Your task to perform on an android device: open app "Cash App" (install if not already installed) Image 0: 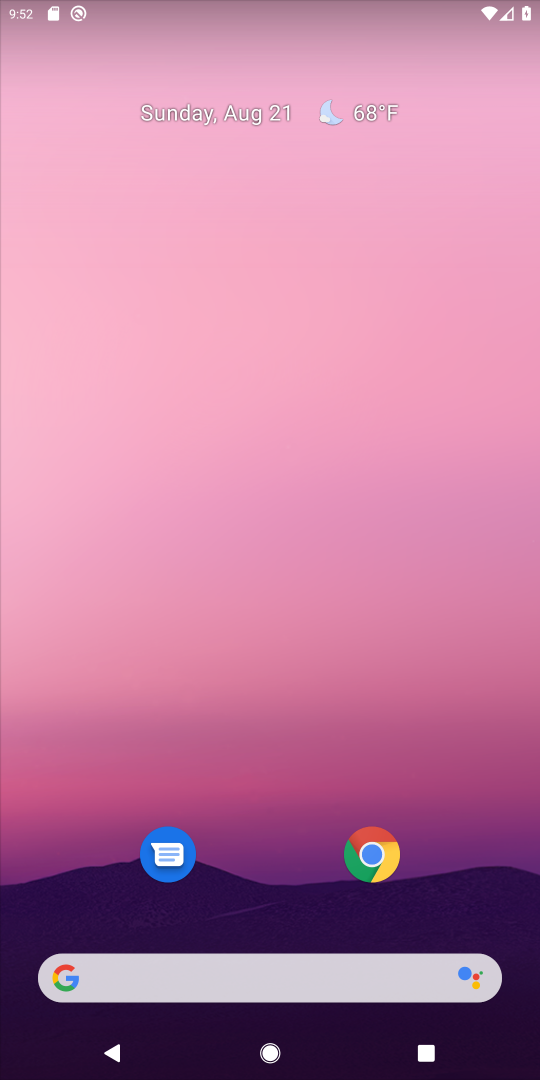
Step 0: drag from (299, 124) to (354, 1)
Your task to perform on an android device: open app "Cash App" (install if not already installed) Image 1: 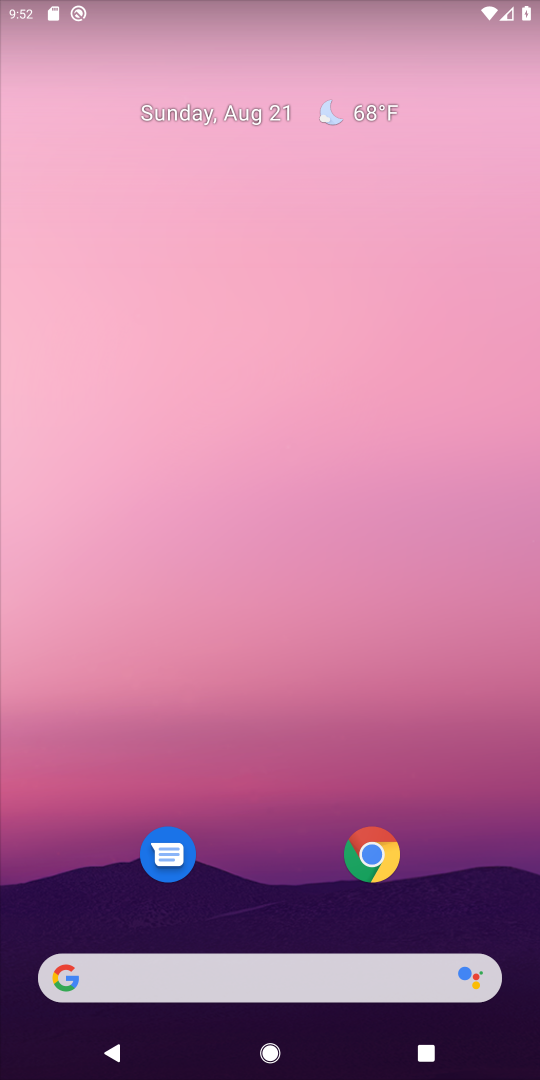
Step 1: drag from (295, 927) to (444, 14)
Your task to perform on an android device: open app "Cash App" (install if not already installed) Image 2: 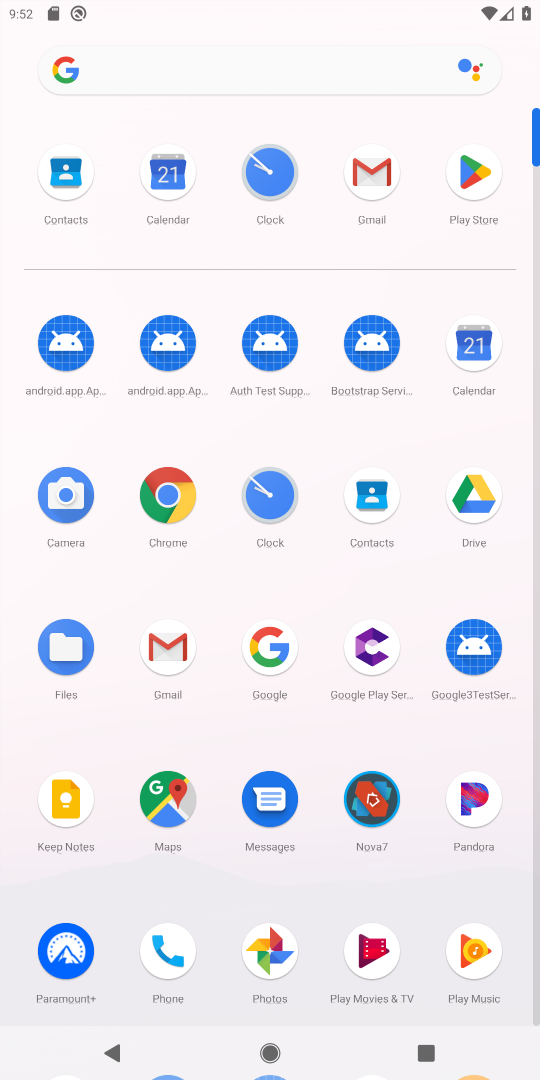
Step 2: click (474, 157)
Your task to perform on an android device: open app "Cash App" (install if not already installed) Image 3: 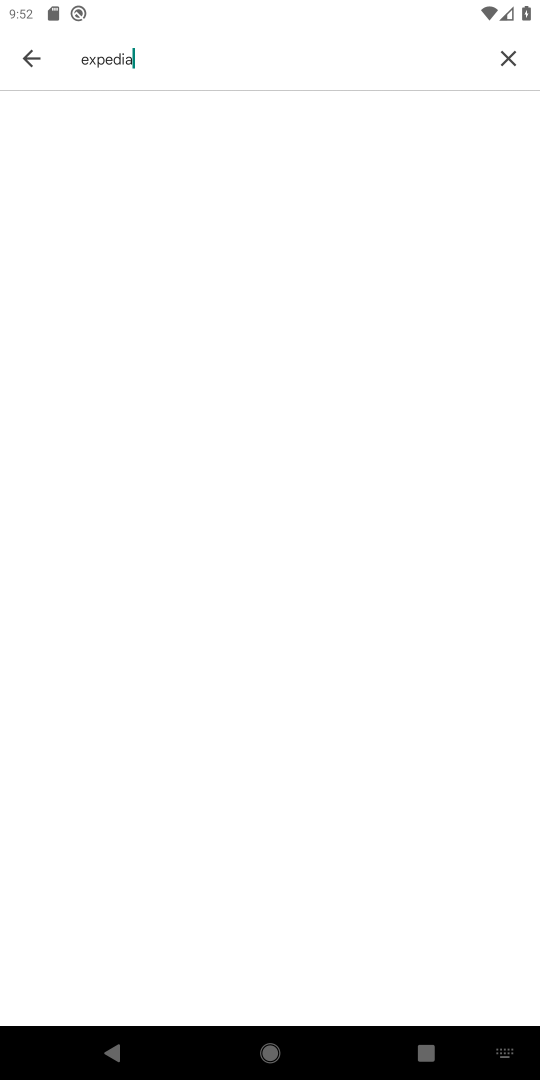
Step 3: click (497, 69)
Your task to perform on an android device: open app "Cash App" (install if not already installed) Image 4: 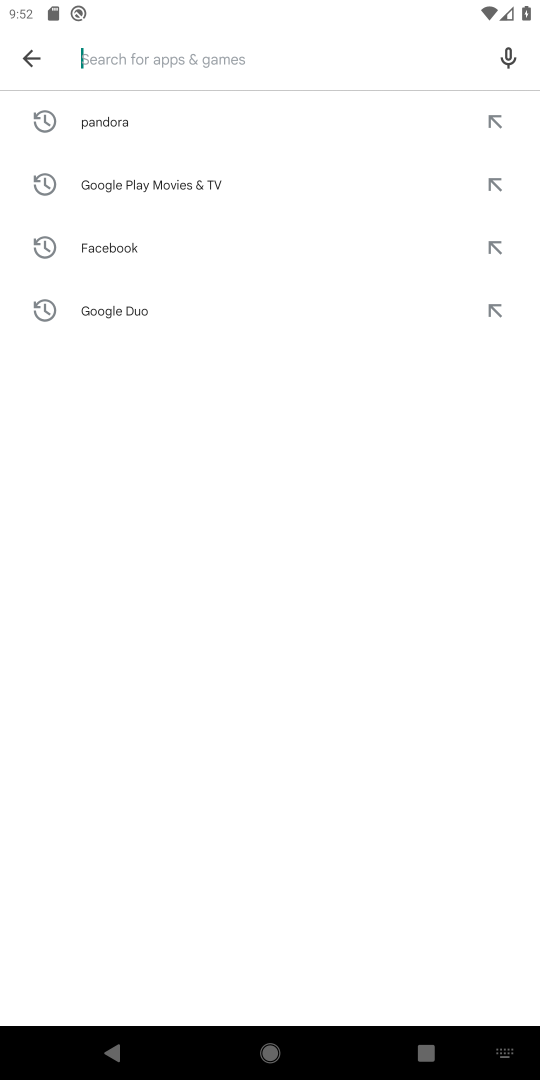
Step 4: type "cash app"
Your task to perform on an android device: open app "Cash App" (install if not already installed) Image 5: 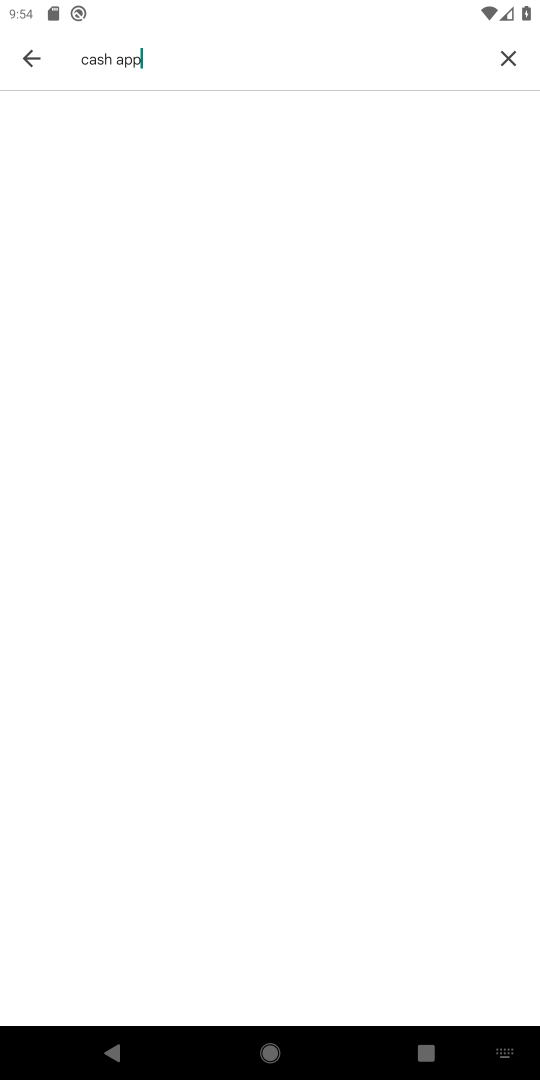
Step 5: task complete